Your task to perform on an android device: turn on translation in the chrome app Image 0: 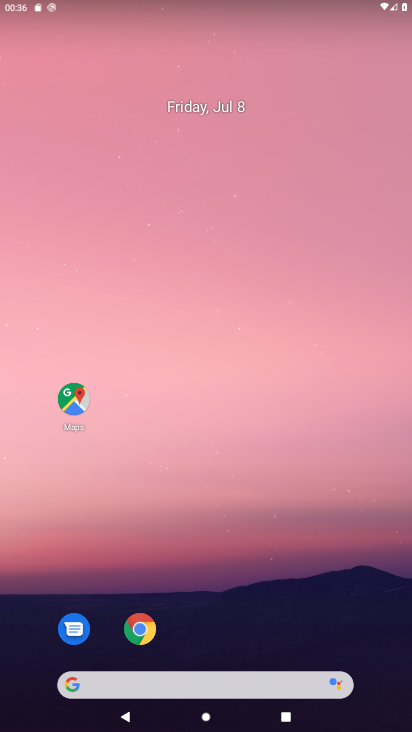
Step 0: click (133, 633)
Your task to perform on an android device: turn on translation in the chrome app Image 1: 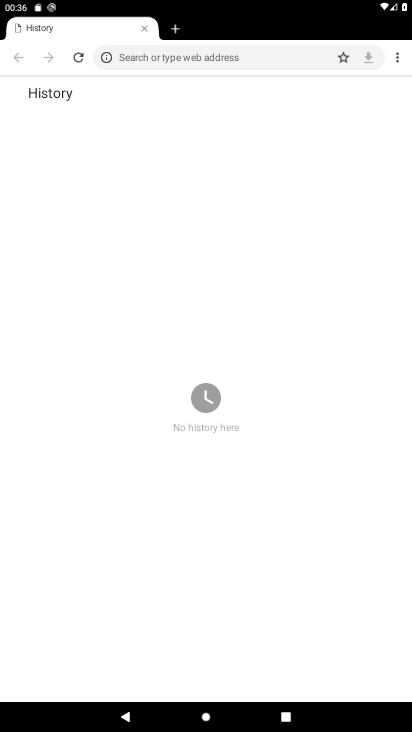
Step 1: click (399, 54)
Your task to perform on an android device: turn on translation in the chrome app Image 2: 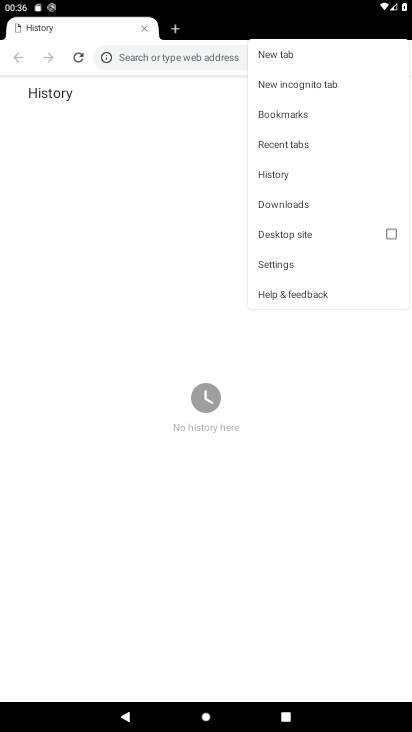
Step 2: click (291, 254)
Your task to perform on an android device: turn on translation in the chrome app Image 3: 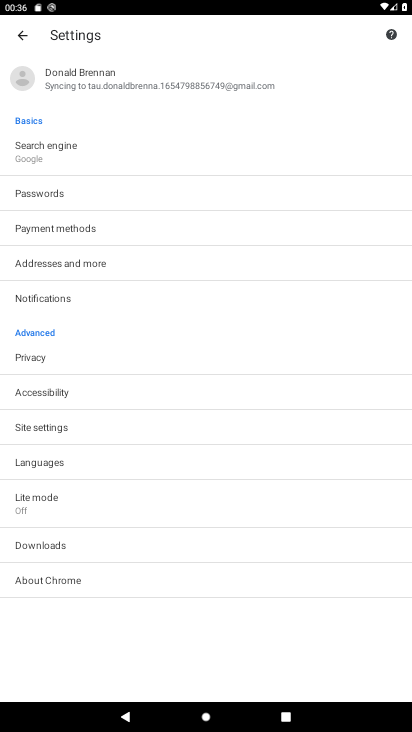
Step 3: click (73, 458)
Your task to perform on an android device: turn on translation in the chrome app Image 4: 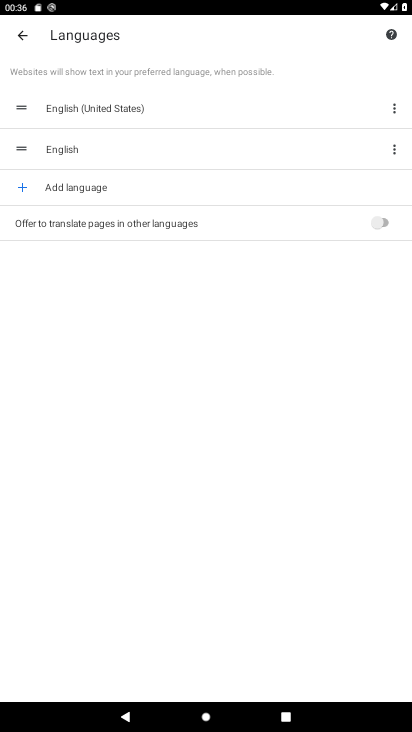
Step 4: click (370, 225)
Your task to perform on an android device: turn on translation in the chrome app Image 5: 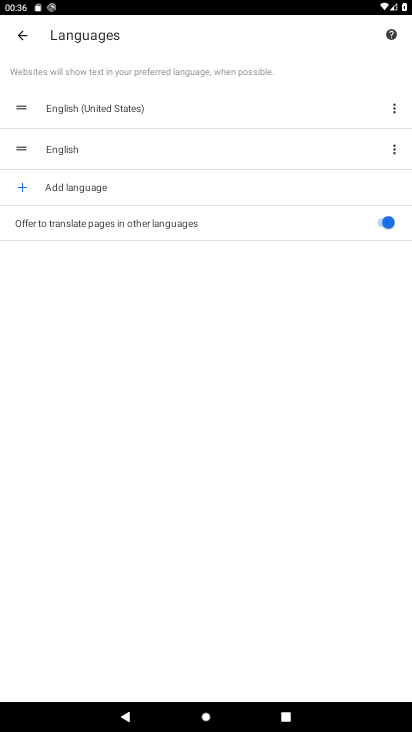
Step 5: task complete